Your task to perform on an android device: Add razer naga to the cart on newegg, then select checkout. Image 0: 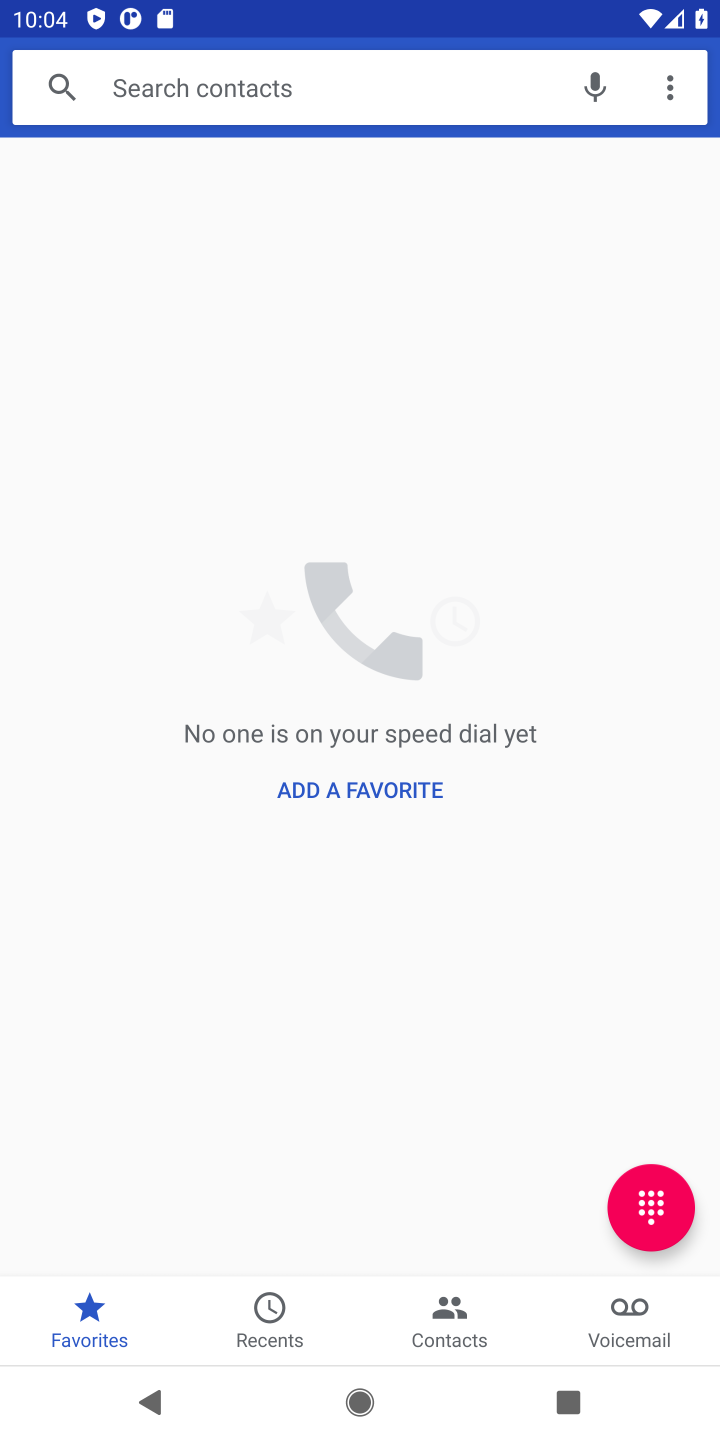
Step 0: press home button
Your task to perform on an android device: Add razer naga to the cart on newegg, then select checkout. Image 1: 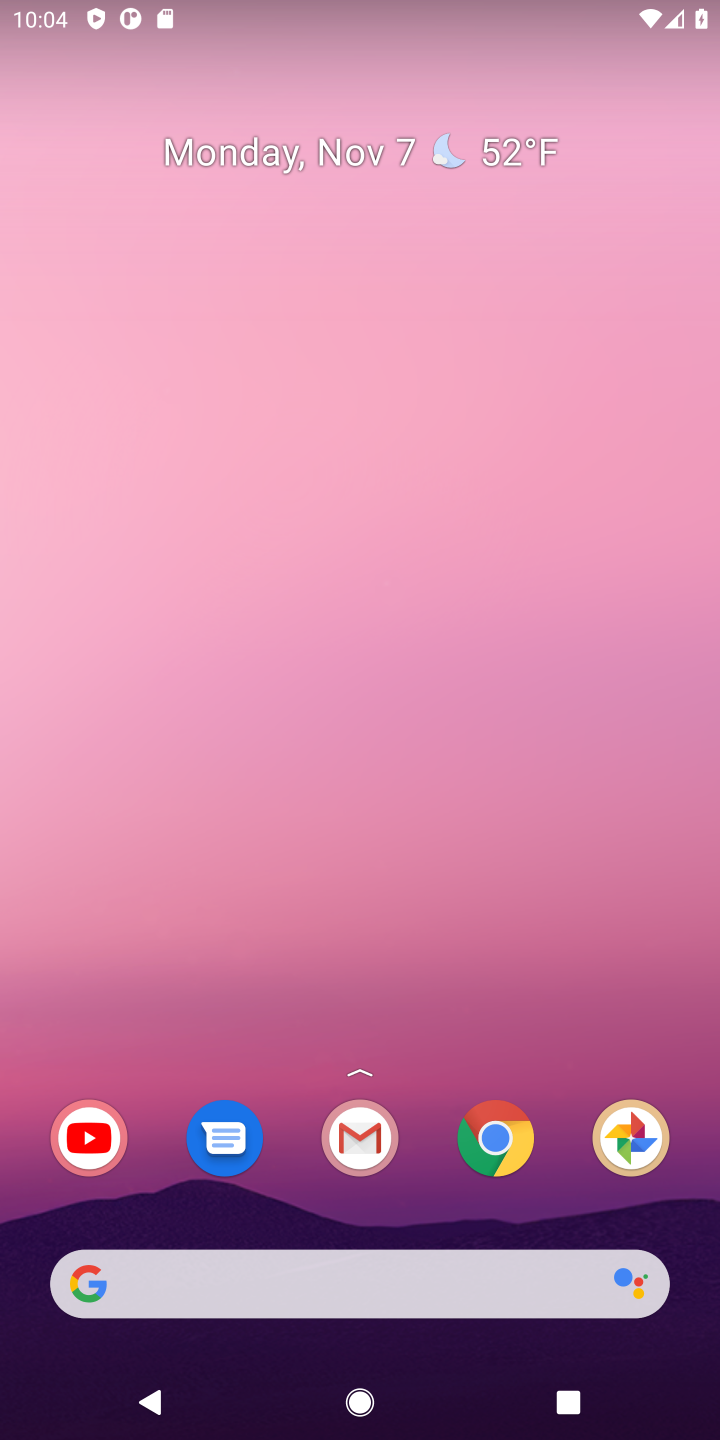
Step 1: drag from (363, 1143) to (363, 620)
Your task to perform on an android device: Add razer naga to the cart on newegg, then select checkout. Image 2: 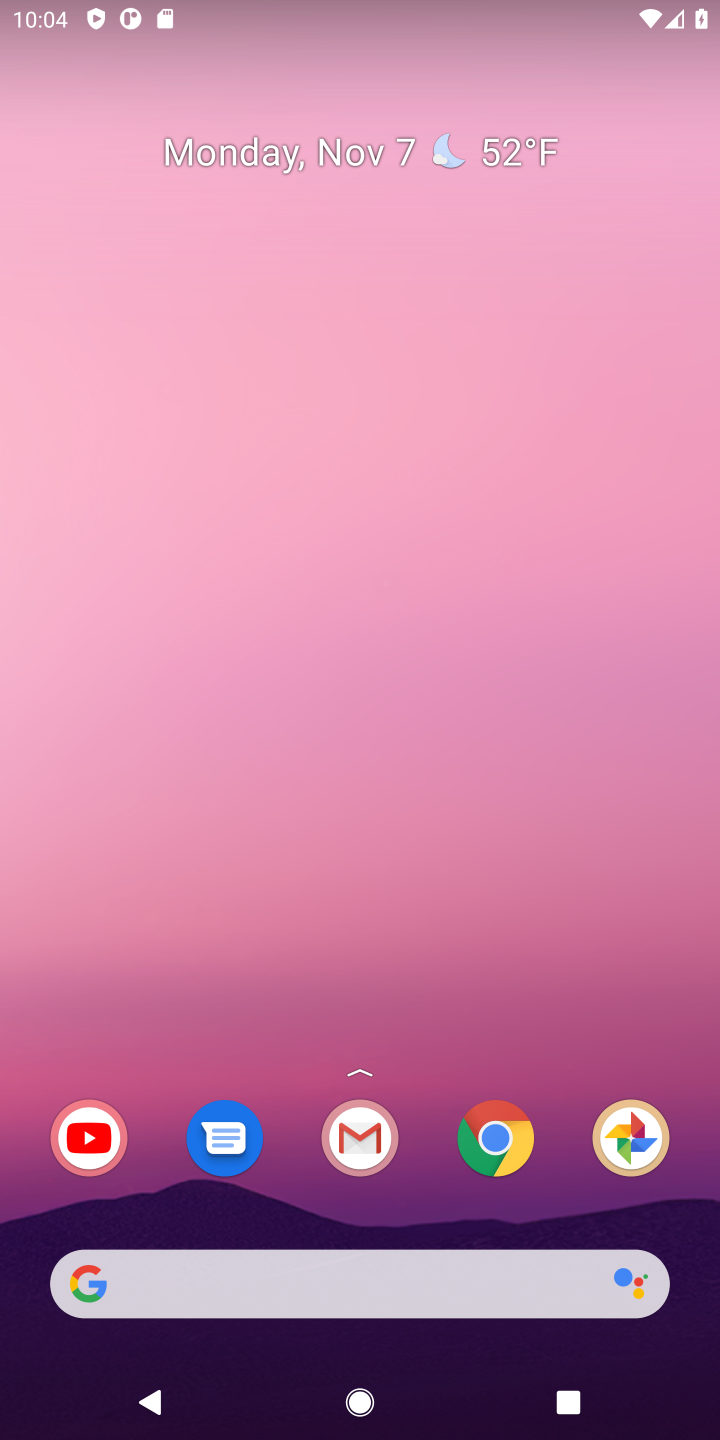
Step 2: drag from (343, 1094) to (419, 723)
Your task to perform on an android device: Add razer naga to the cart on newegg, then select checkout. Image 3: 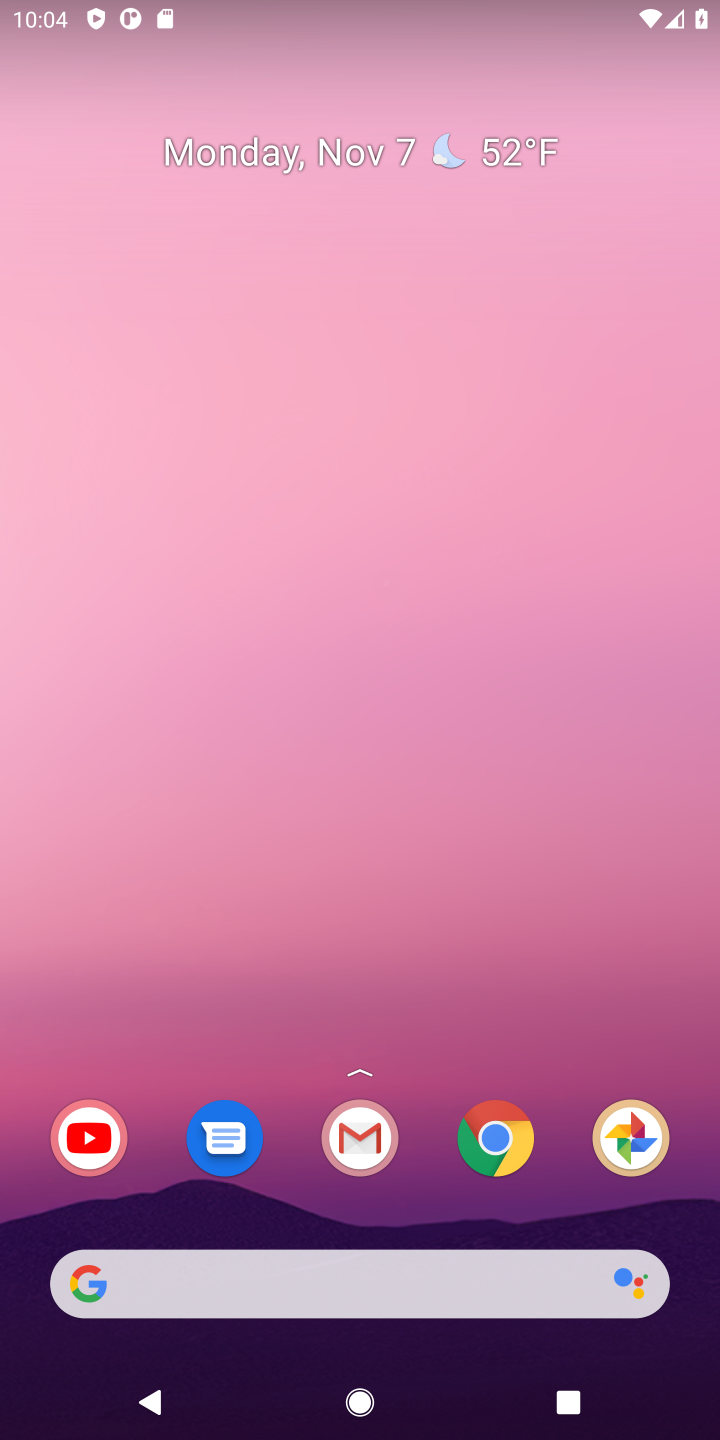
Step 3: drag from (408, 1106) to (346, 481)
Your task to perform on an android device: Add razer naga to the cart on newegg, then select checkout. Image 4: 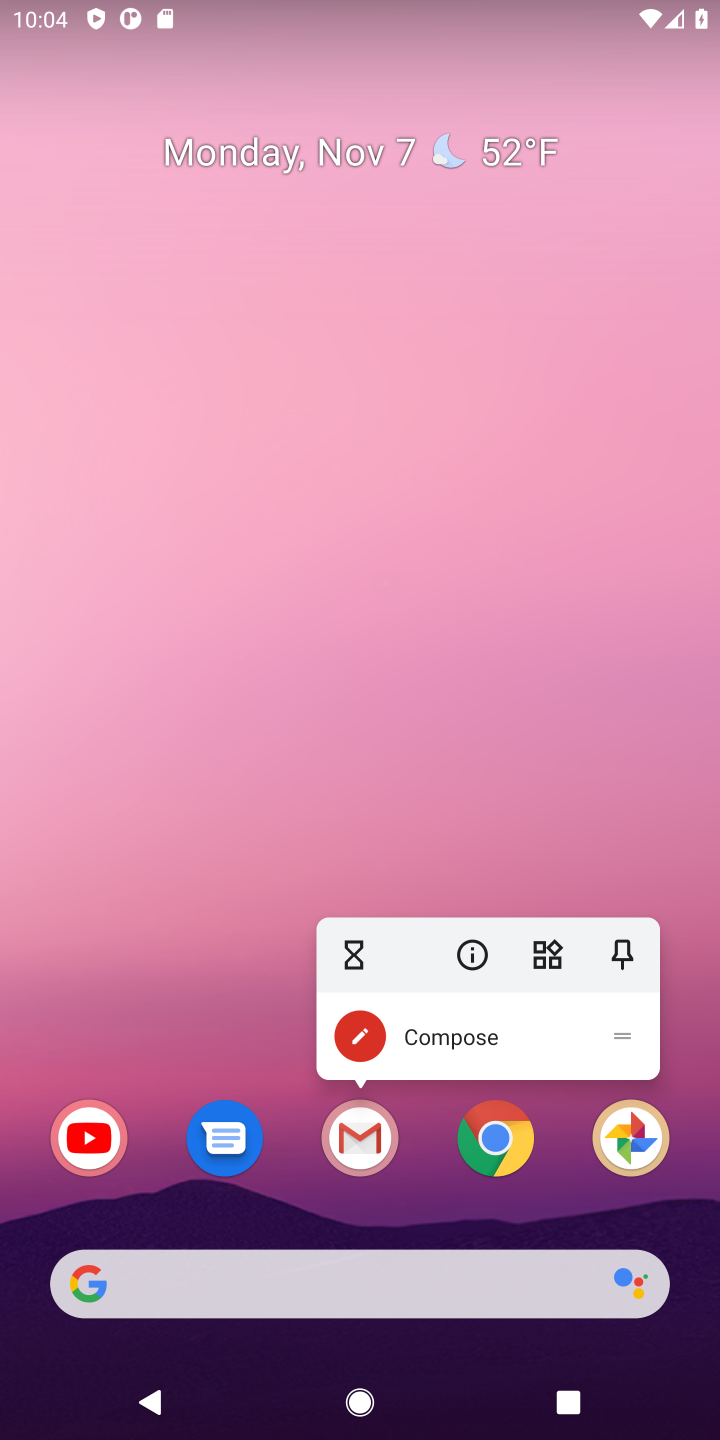
Step 4: click (379, 595)
Your task to perform on an android device: Add razer naga to the cart on newegg, then select checkout. Image 5: 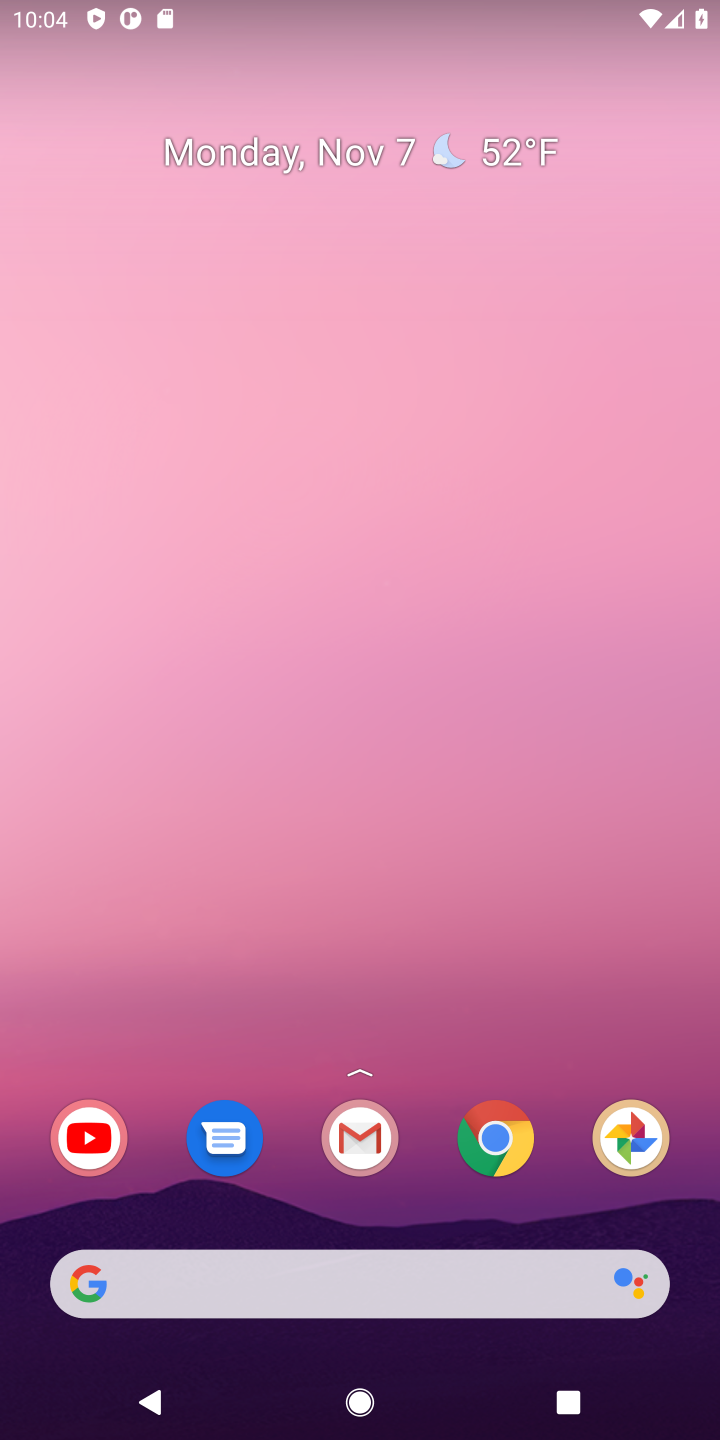
Step 5: drag from (325, 929) to (325, 402)
Your task to perform on an android device: Add razer naga to the cart on newegg, then select checkout. Image 6: 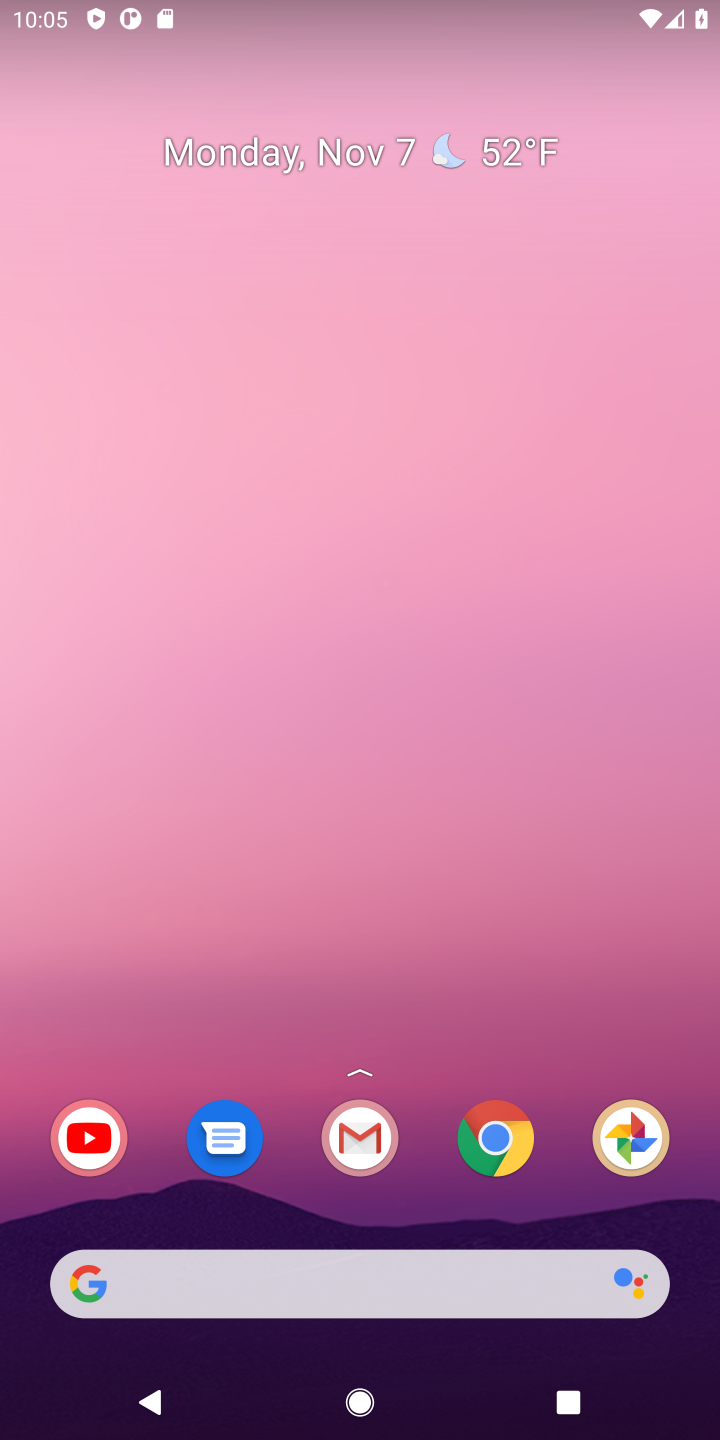
Step 6: drag from (382, 1139) to (240, 314)
Your task to perform on an android device: Add razer naga to the cart on newegg, then select checkout. Image 7: 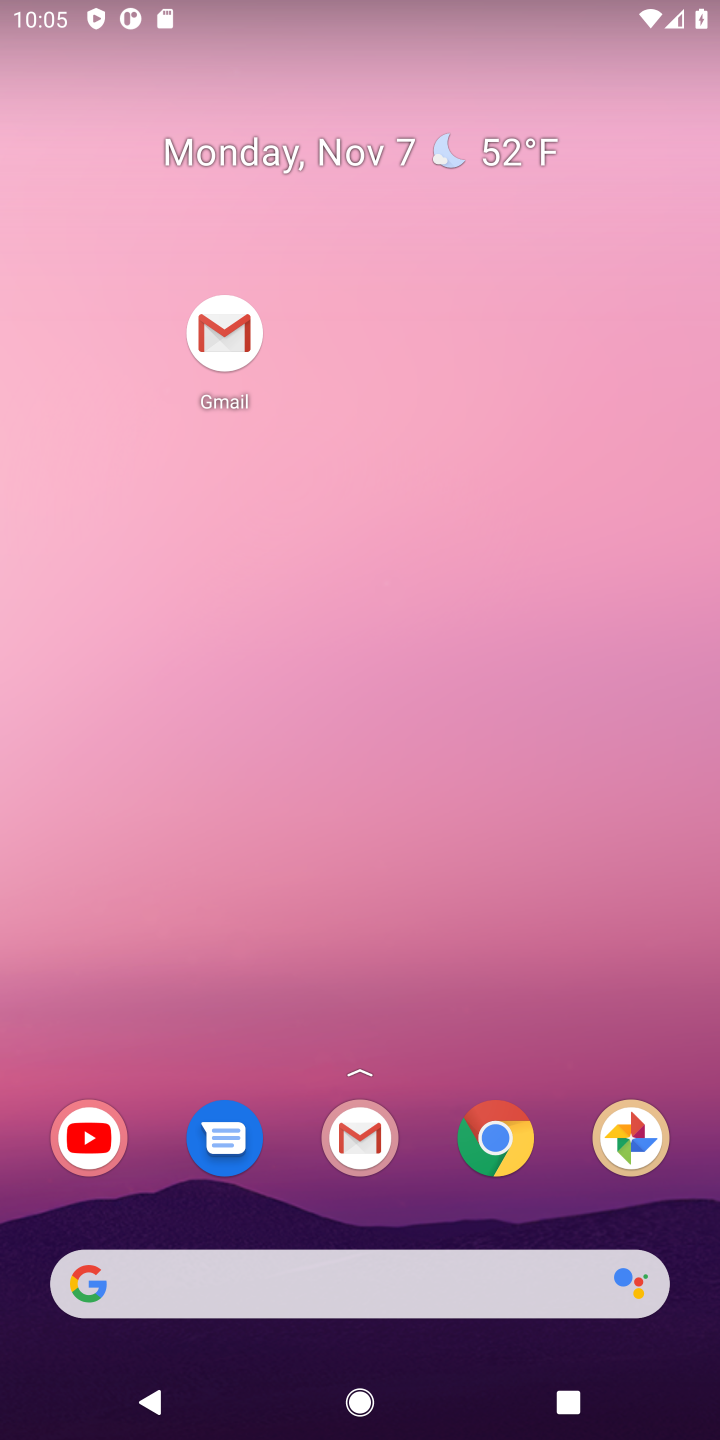
Step 7: drag from (332, 1200) to (669, 81)
Your task to perform on an android device: Add razer naga to the cart on newegg, then select checkout. Image 8: 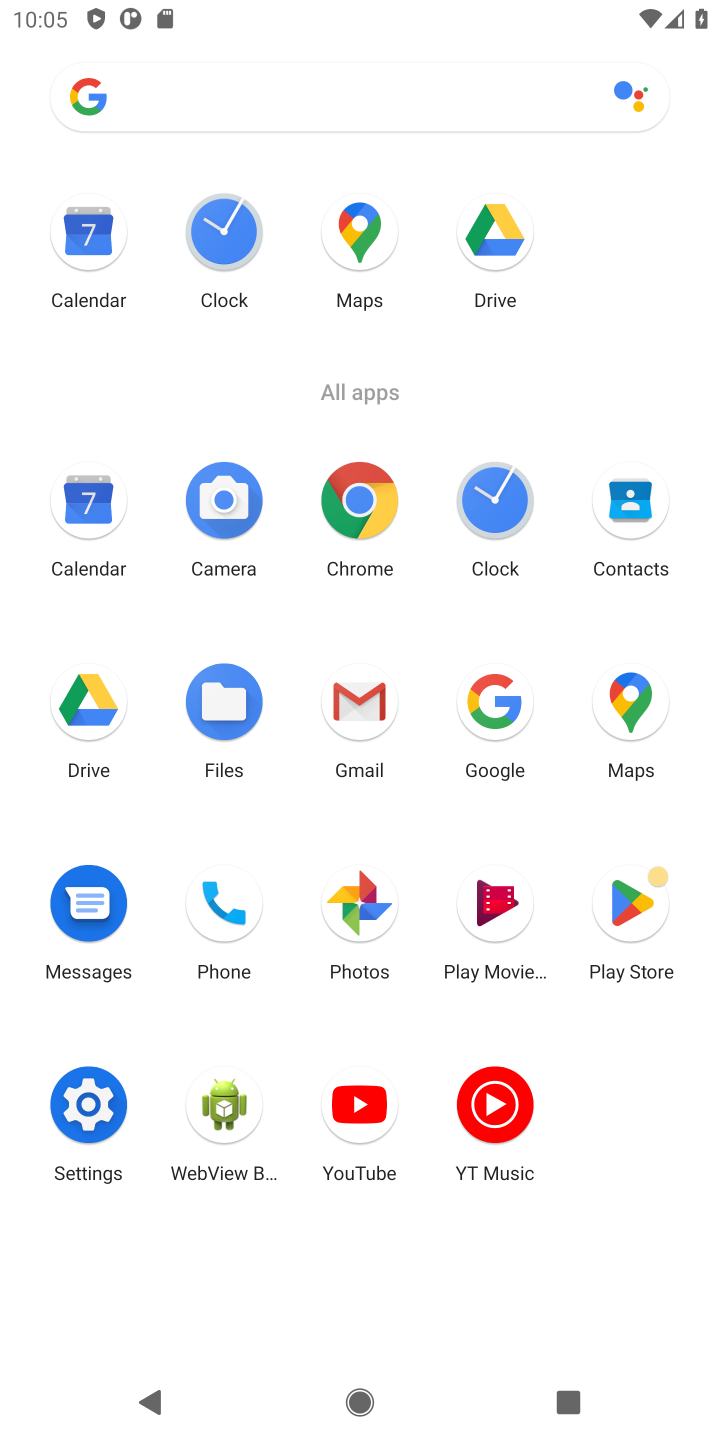
Step 8: click (515, 722)
Your task to perform on an android device: Add razer naga to the cart on newegg, then select checkout. Image 9: 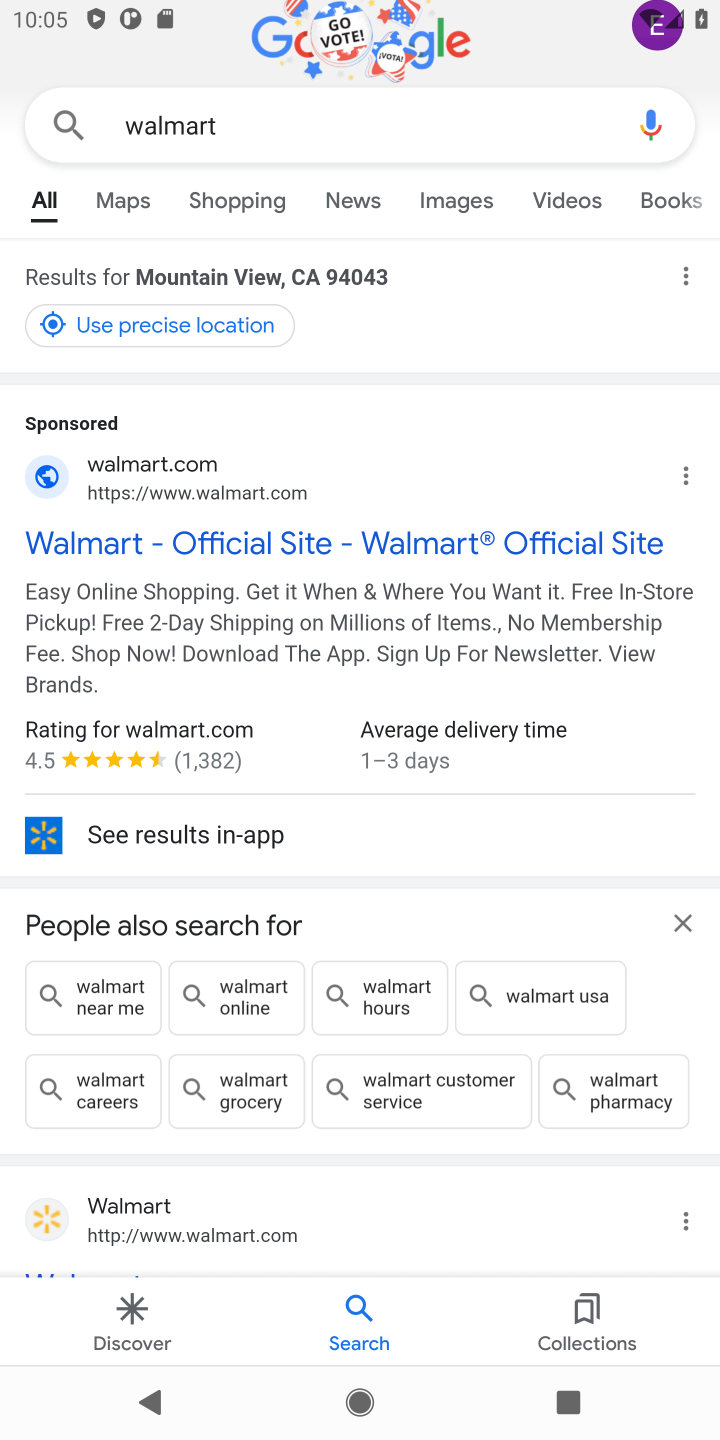
Step 9: click (556, 127)
Your task to perform on an android device: Add razer naga to the cart on newegg, then select checkout. Image 10: 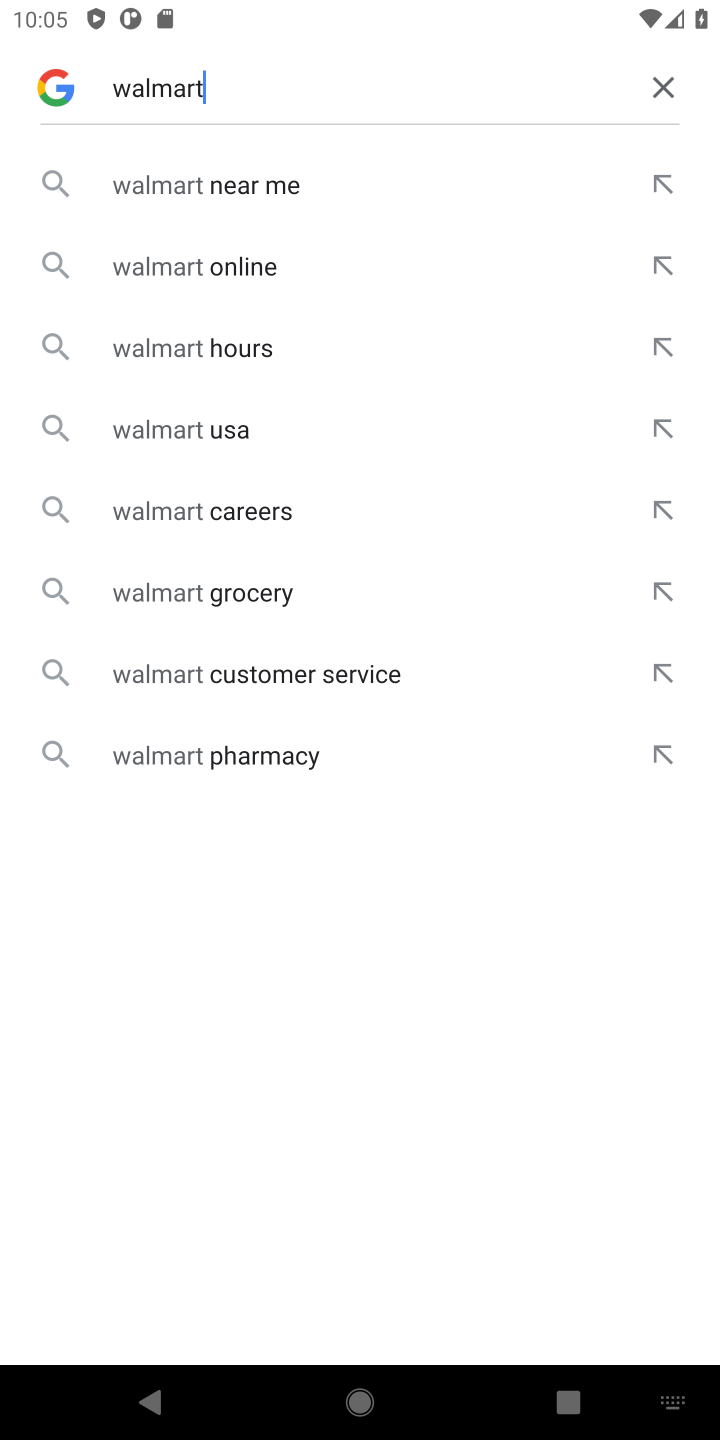
Step 10: click (663, 82)
Your task to perform on an android device: Add razer naga to the cart on newegg, then select checkout. Image 11: 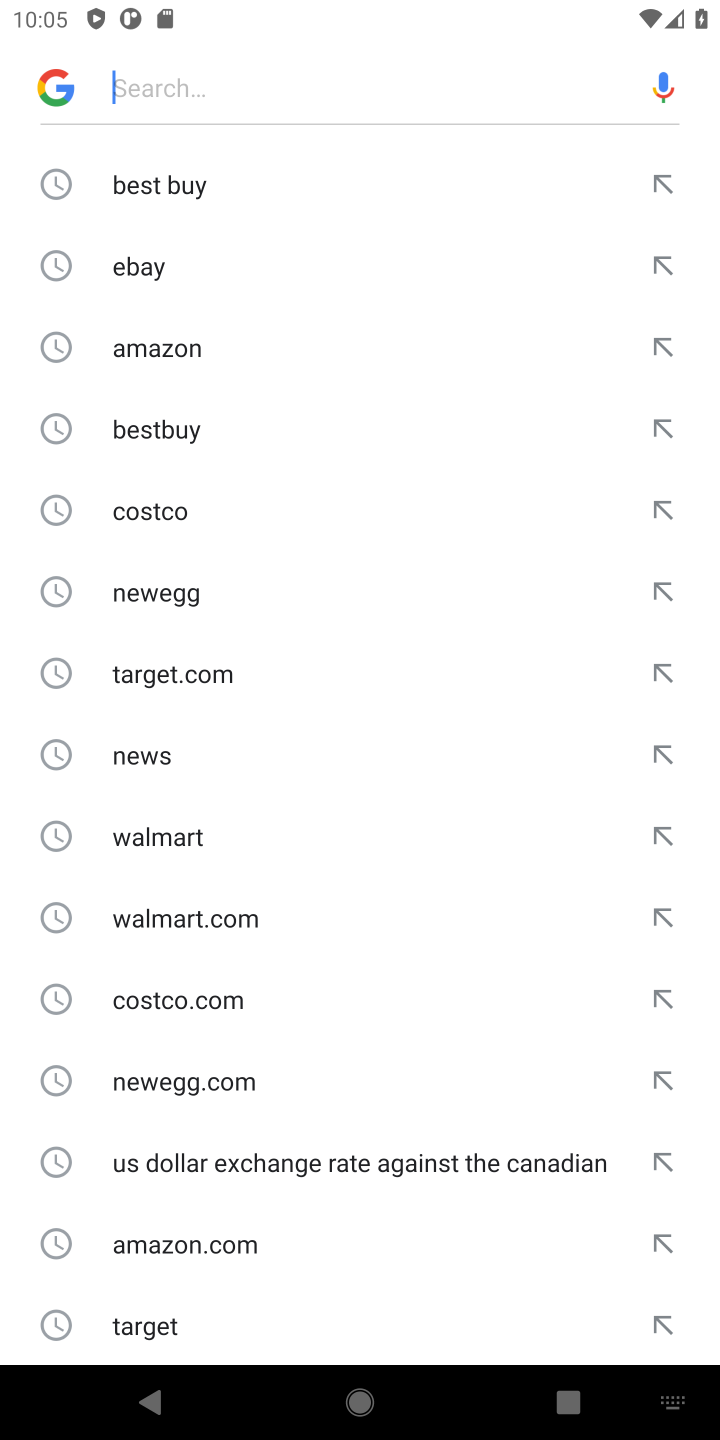
Step 11: click (192, 590)
Your task to perform on an android device: Add razer naga to the cart on newegg, then select checkout. Image 12: 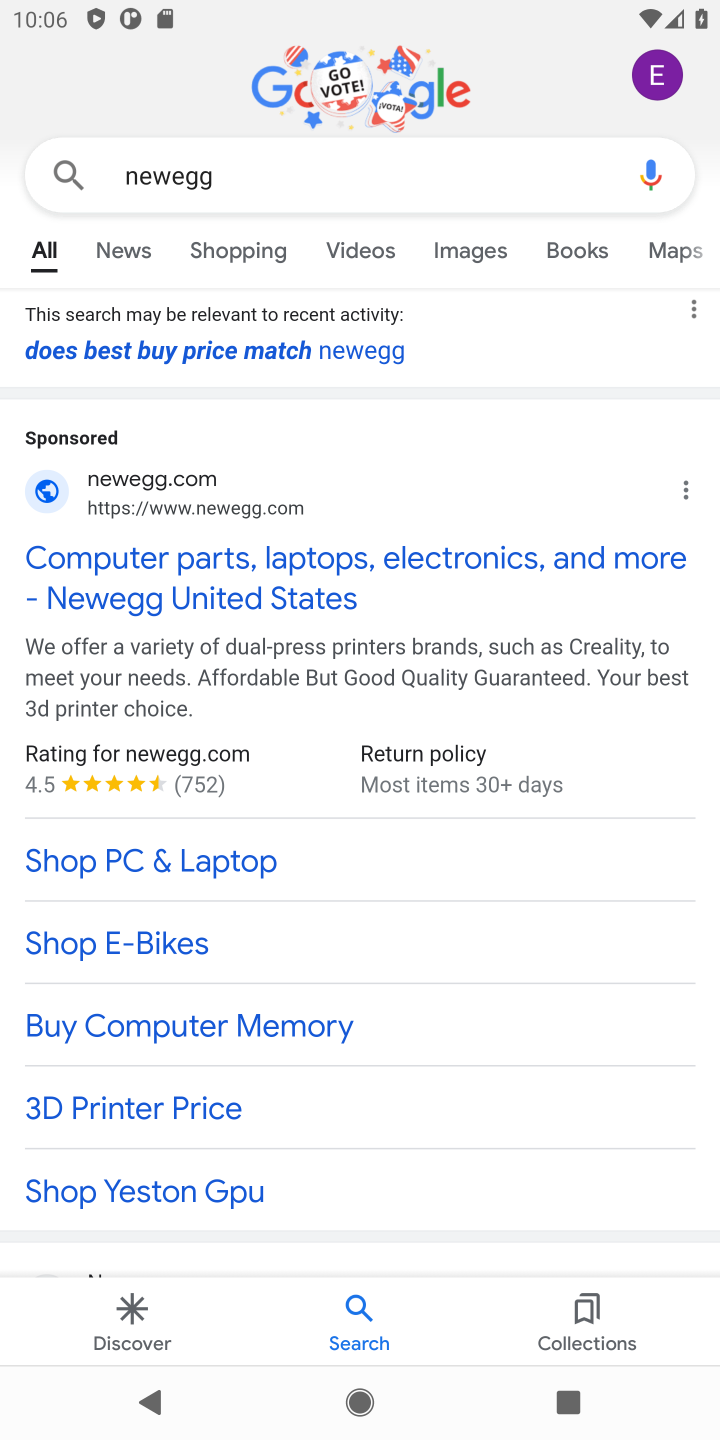
Step 12: click (284, 571)
Your task to perform on an android device: Add razer naga to the cart on newegg, then select checkout. Image 13: 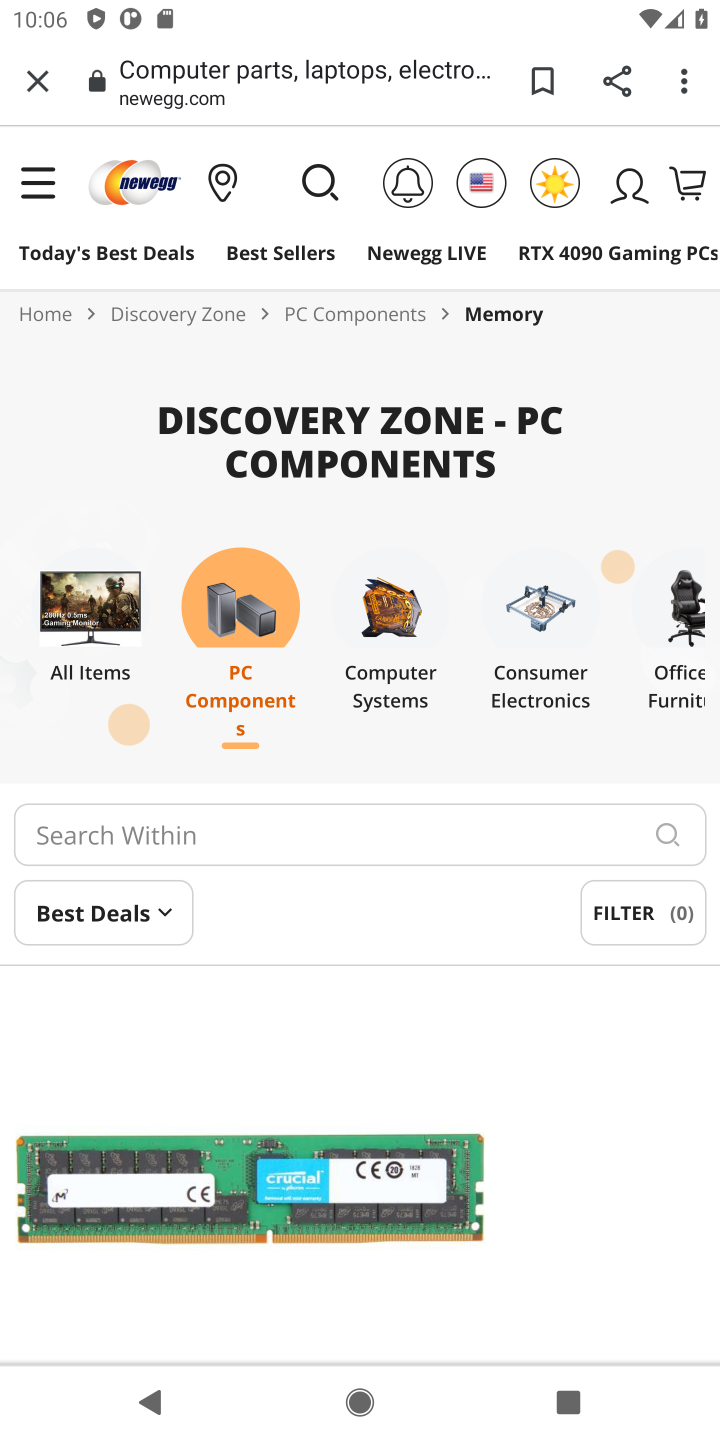
Step 13: click (325, 189)
Your task to perform on an android device: Add razer naga to the cart on newegg, then select checkout. Image 14: 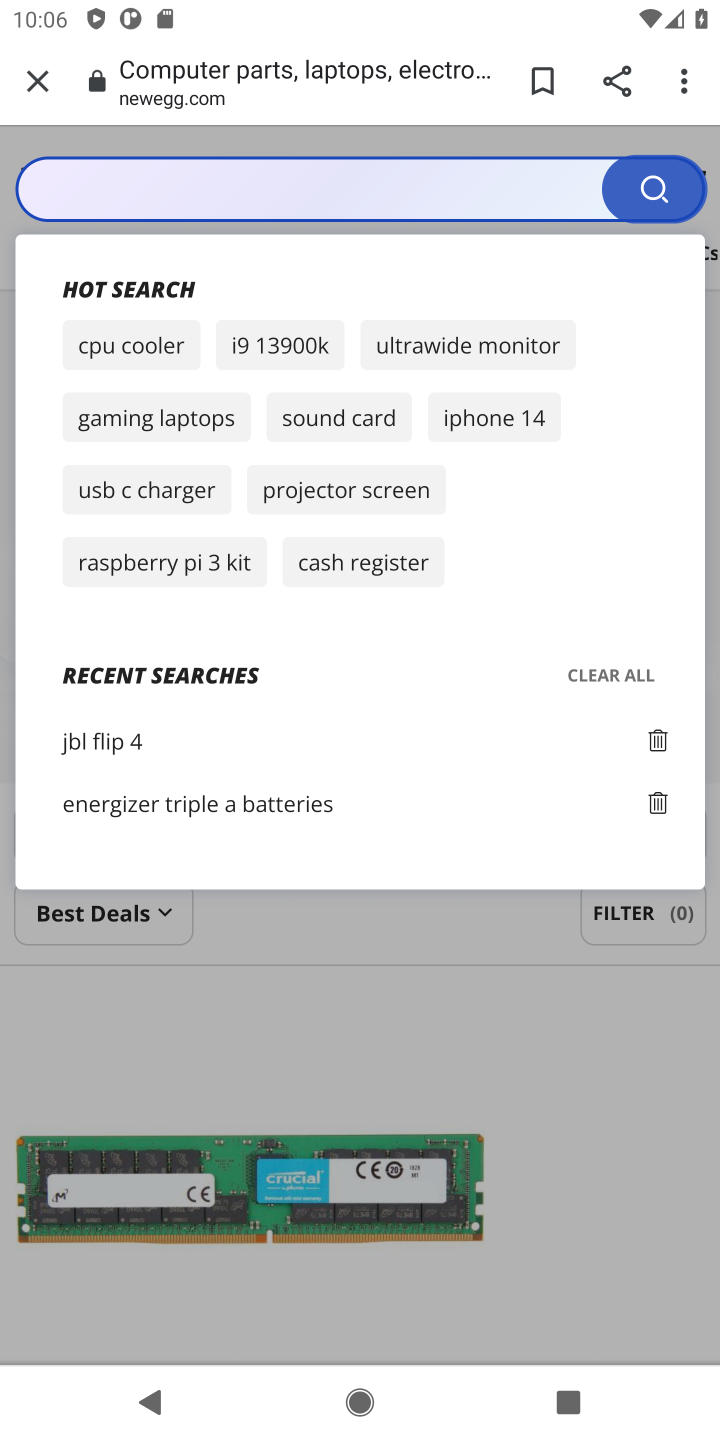
Step 14: click (277, 193)
Your task to perform on an android device: Add razer naga to the cart on newegg, then select checkout. Image 15: 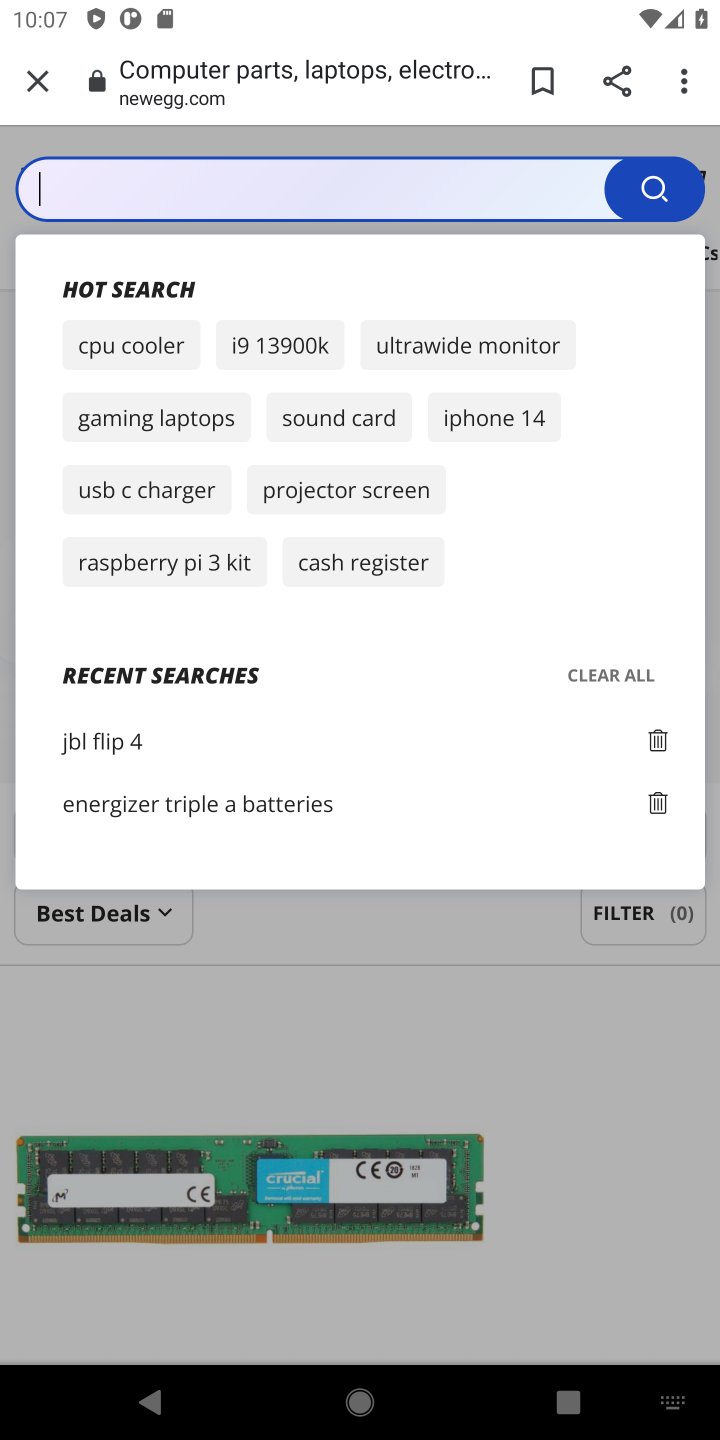
Step 15: type "razer naga"
Your task to perform on an android device: Add razer naga to the cart on newegg, then select checkout. Image 16: 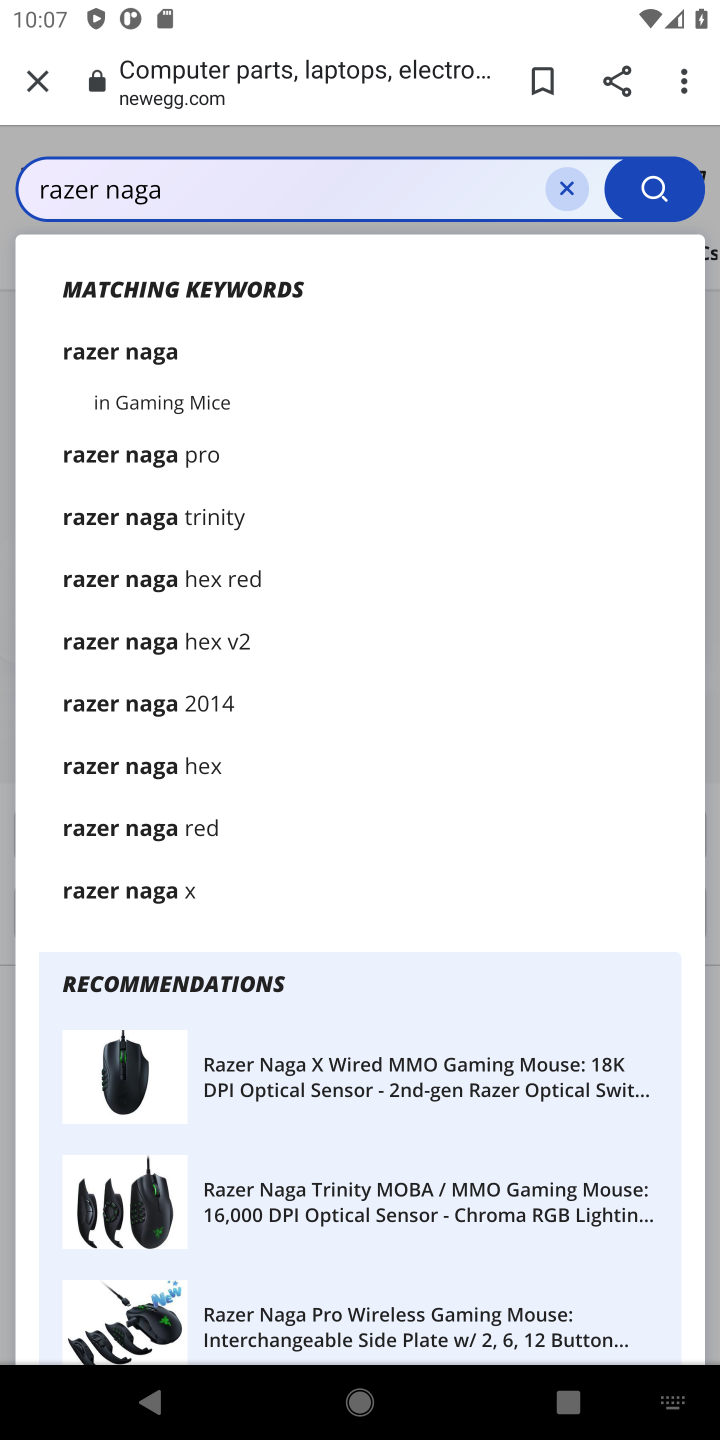
Step 16: click (139, 883)
Your task to perform on an android device: Add razer naga to the cart on newegg, then select checkout. Image 17: 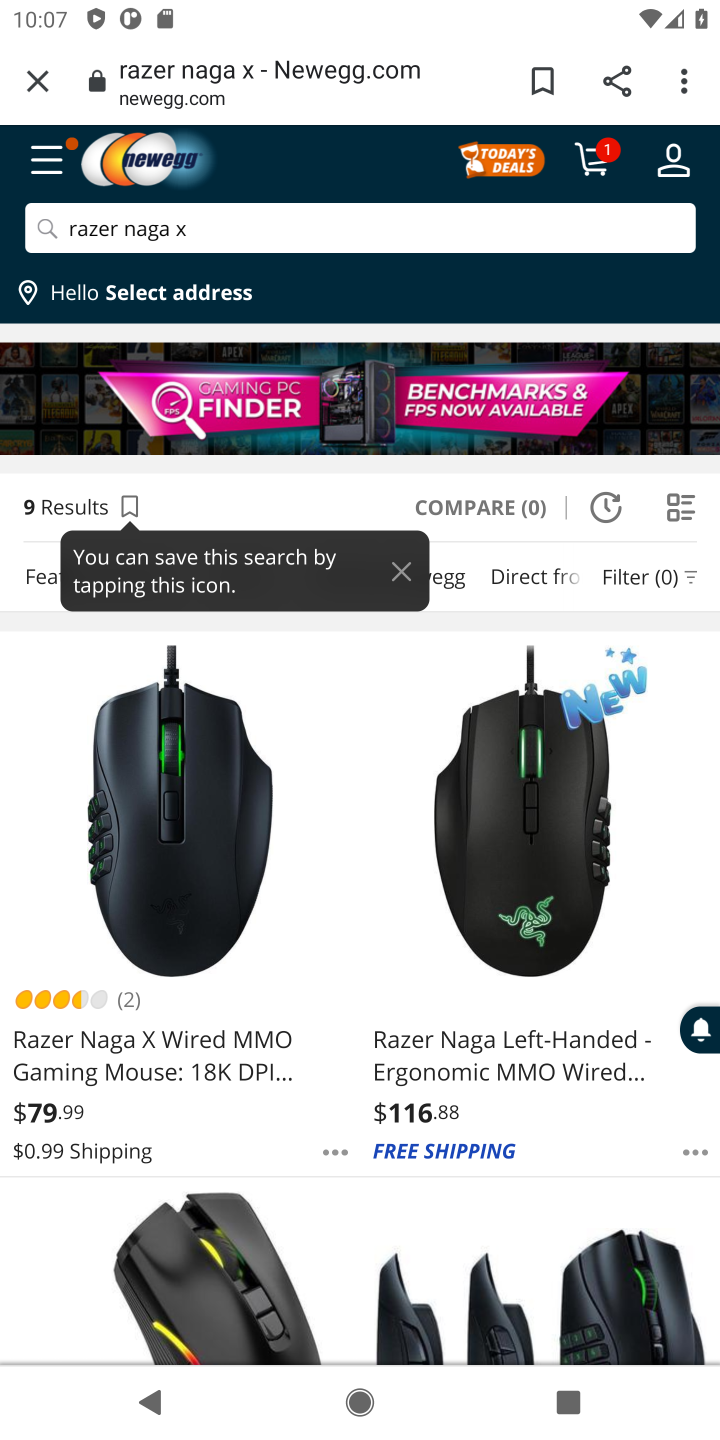
Step 17: click (170, 836)
Your task to perform on an android device: Add razer naga to the cart on newegg, then select checkout. Image 18: 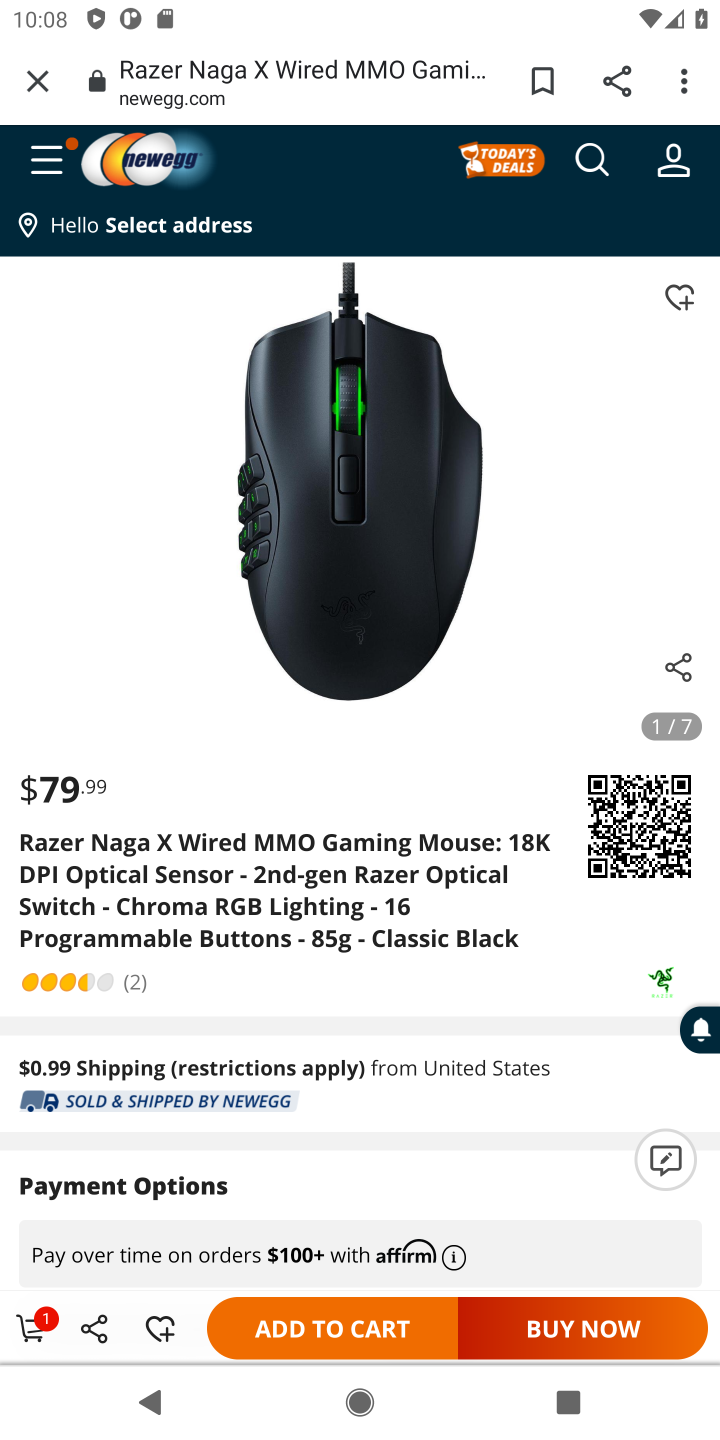
Step 18: click (367, 1311)
Your task to perform on an android device: Add razer naga to the cart on newegg, then select checkout. Image 19: 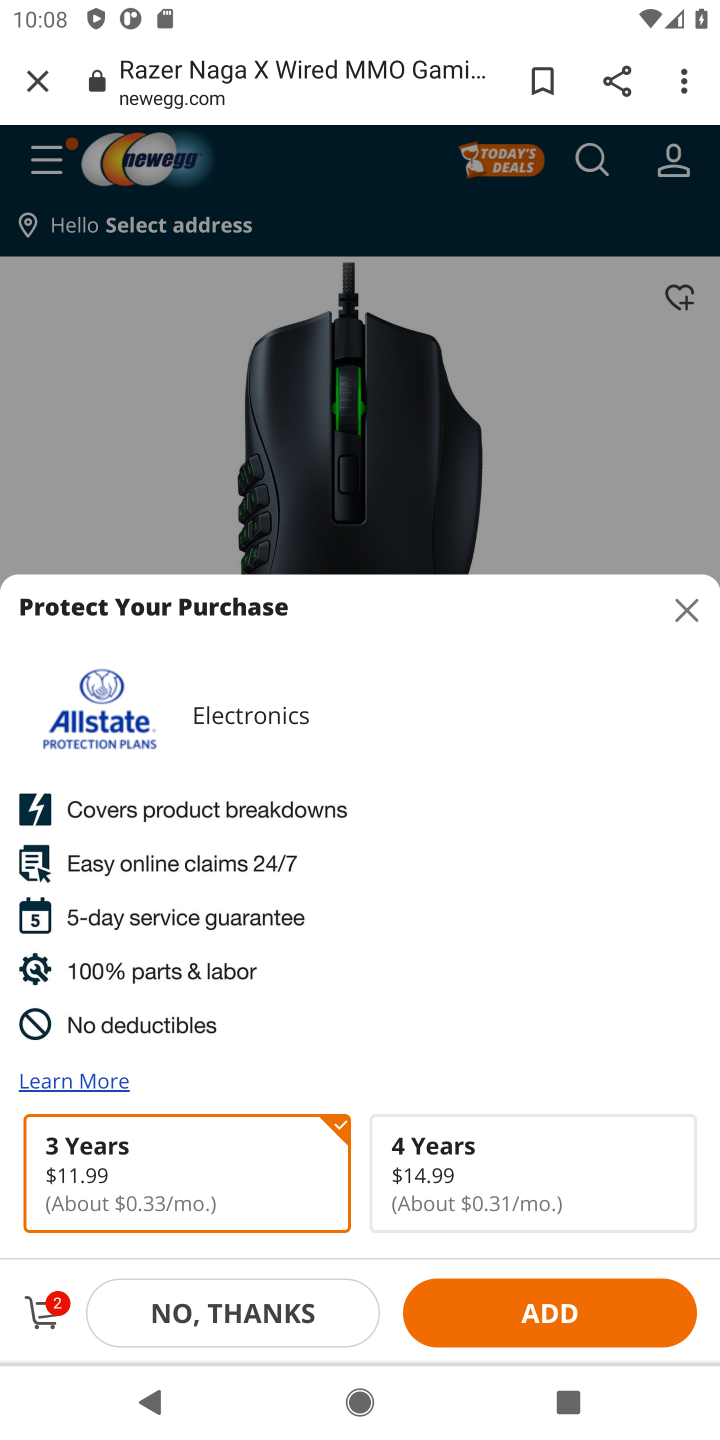
Step 19: task complete